Your task to perform on an android device: empty trash in the gmail app Image 0: 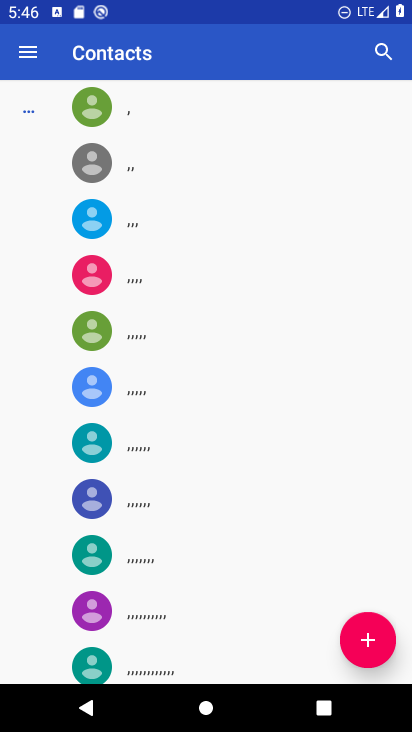
Step 0: press home button
Your task to perform on an android device: empty trash in the gmail app Image 1: 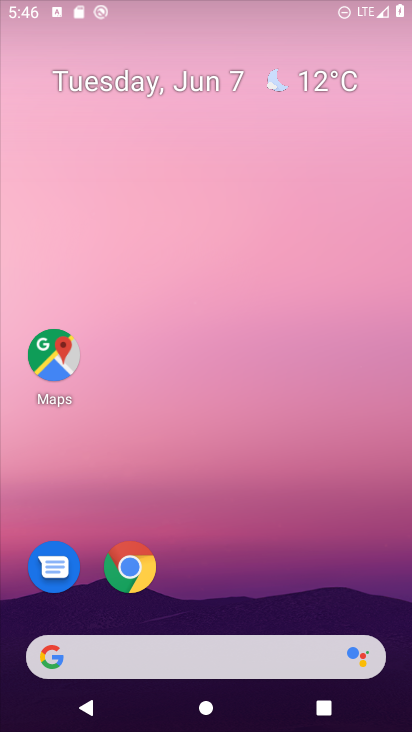
Step 1: drag from (365, 645) to (361, 1)
Your task to perform on an android device: empty trash in the gmail app Image 2: 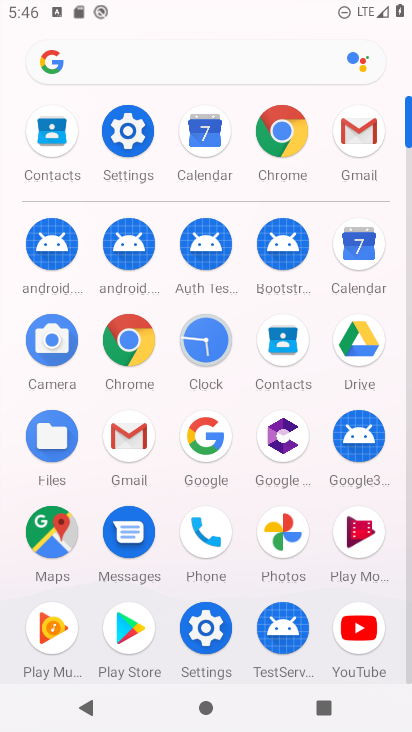
Step 2: click (149, 446)
Your task to perform on an android device: empty trash in the gmail app Image 3: 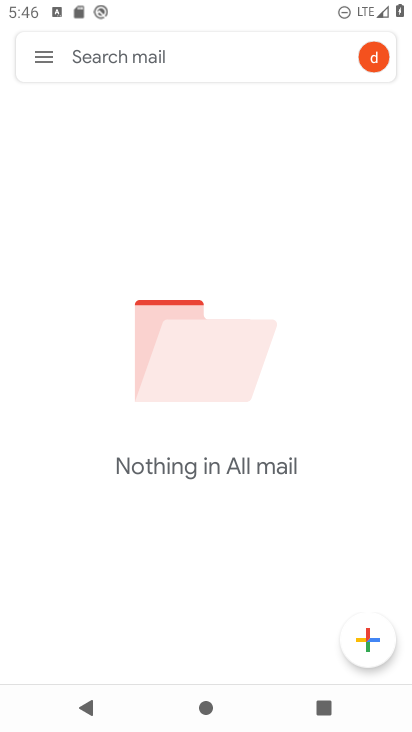
Step 3: click (45, 47)
Your task to perform on an android device: empty trash in the gmail app Image 4: 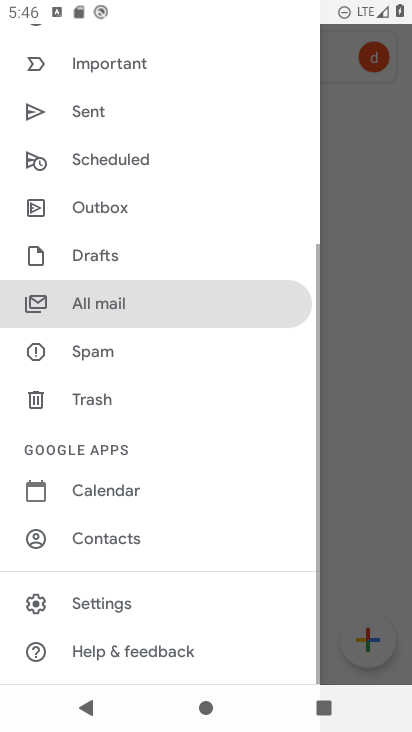
Step 4: click (131, 406)
Your task to perform on an android device: empty trash in the gmail app Image 5: 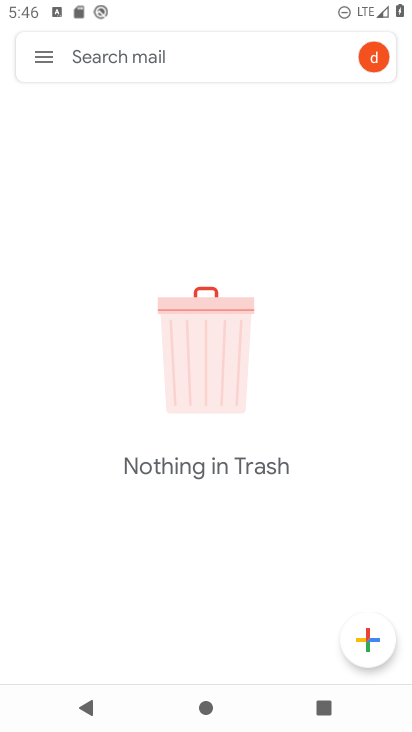
Step 5: task complete